Your task to perform on an android device: set an alarm Image 0: 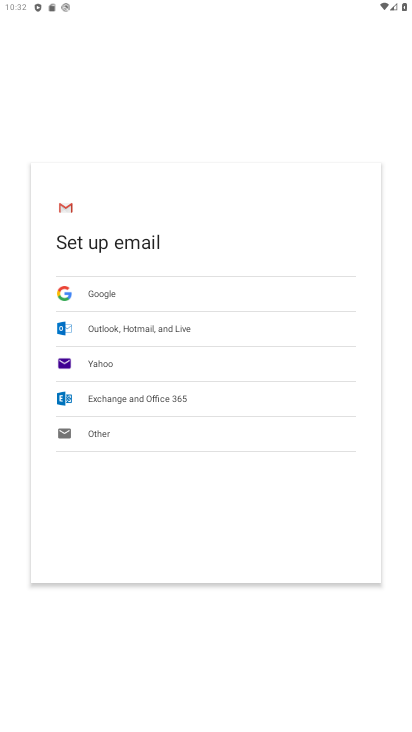
Step 0: press home button
Your task to perform on an android device: set an alarm Image 1: 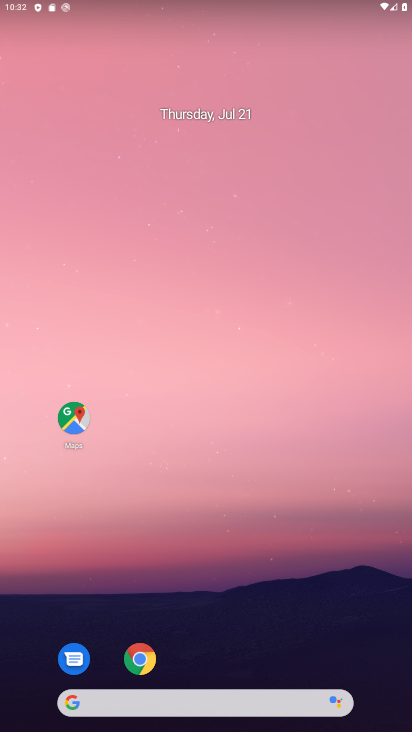
Step 1: drag from (336, 594) to (294, 2)
Your task to perform on an android device: set an alarm Image 2: 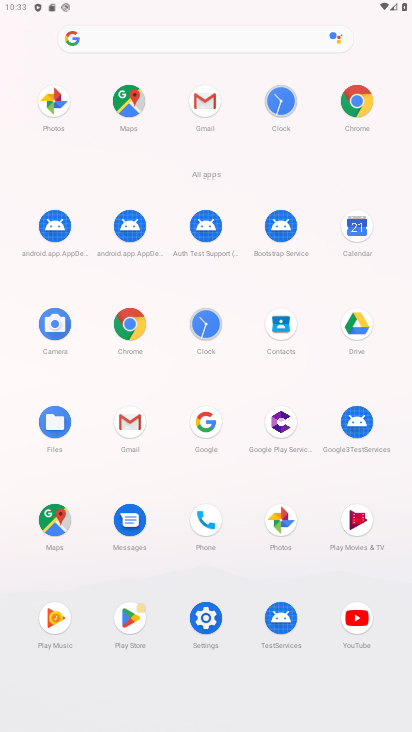
Step 2: click (290, 100)
Your task to perform on an android device: set an alarm Image 3: 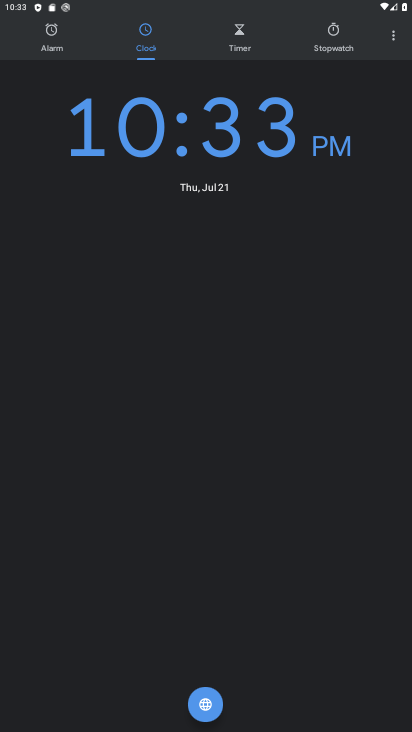
Step 3: click (59, 35)
Your task to perform on an android device: set an alarm Image 4: 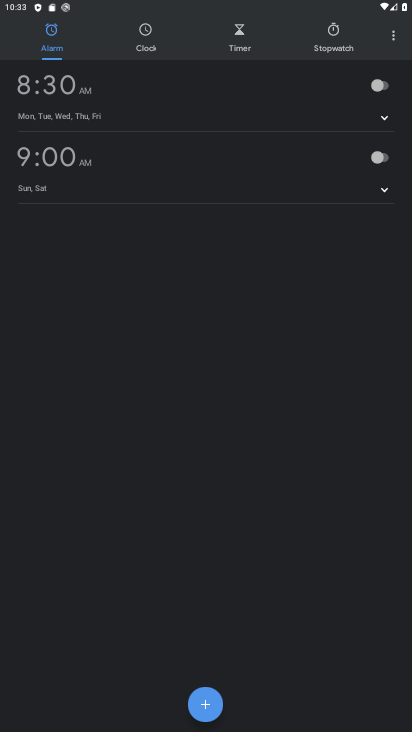
Step 4: click (383, 89)
Your task to perform on an android device: set an alarm Image 5: 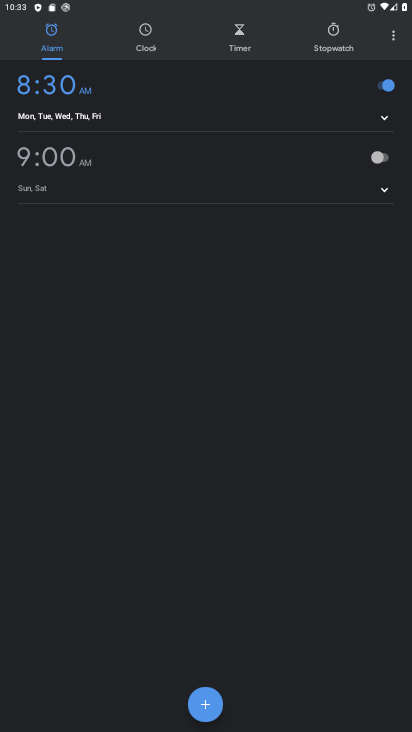
Step 5: task complete